Your task to perform on an android device: empty trash in the gmail app Image 0: 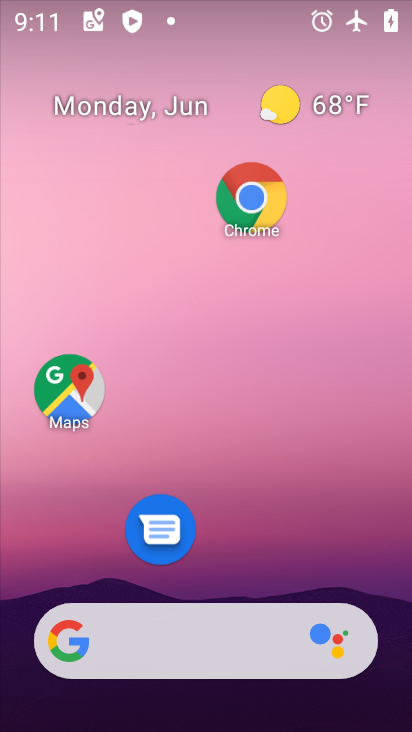
Step 0: drag from (210, 575) to (206, 172)
Your task to perform on an android device: empty trash in the gmail app Image 1: 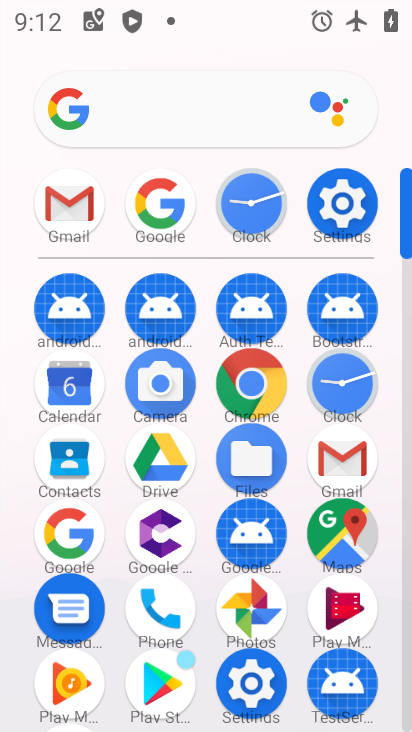
Step 1: click (65, 186)
Your task to perform on an android device: empty trash in the gmail app Image 2: 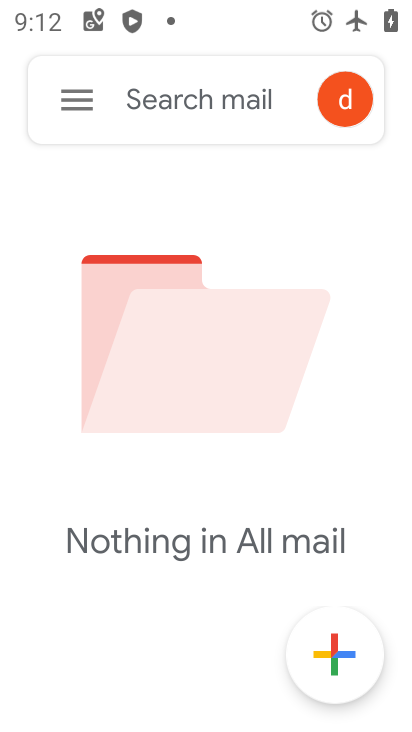
Step 2: click (67, 89)
Your task to perform on an android device: empty trash in the gmail app Image 3: 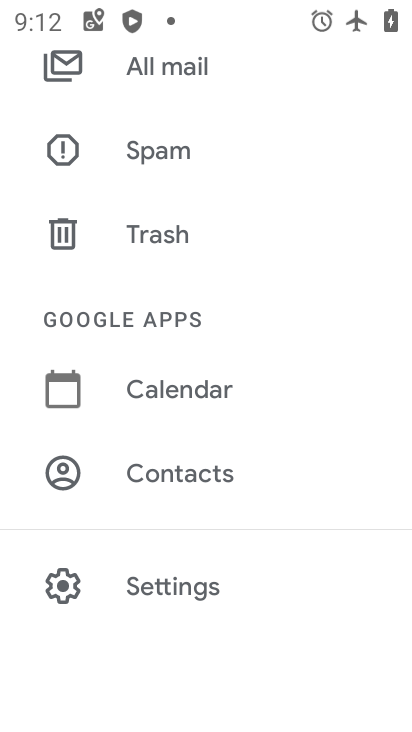
Step 3: click (172, 240)
Your task to perform on an android device: empty trash in the gmail app Image 4: 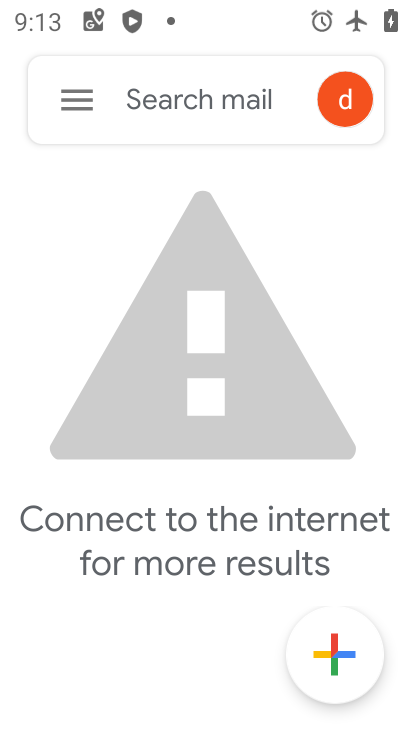
Step 4: task complete